Your task to perform on an android device: Search for Italian restaurants on Maps Image 0: 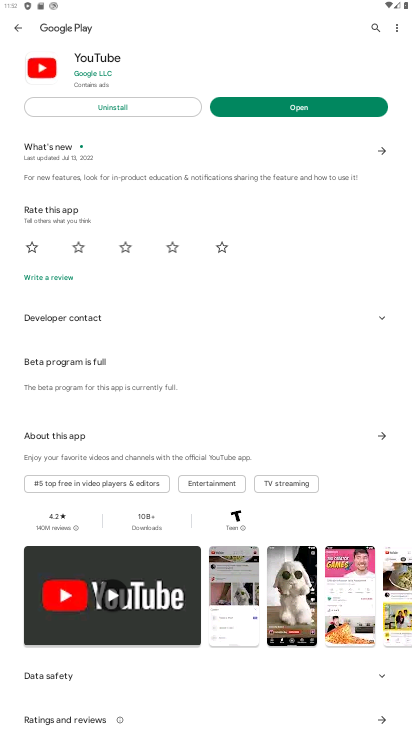
Step 0: press home button
Your task to perform on an android device: Search for Italian restaurants on Maps Image 1: 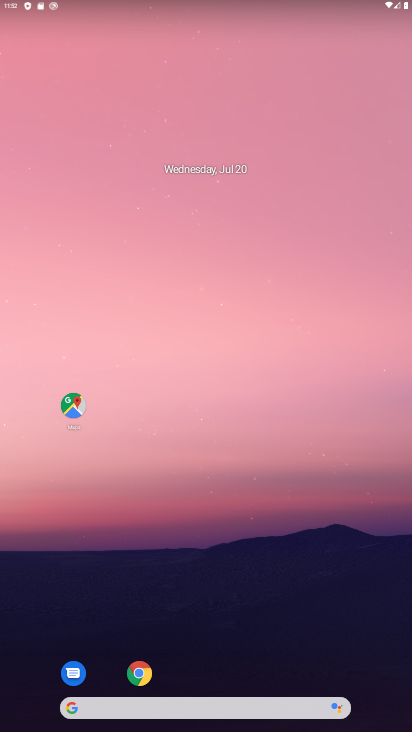
Step 1: click (71, 406)
Your task to perform on an android device: Search for Italian restaurants on Maps Image 2: 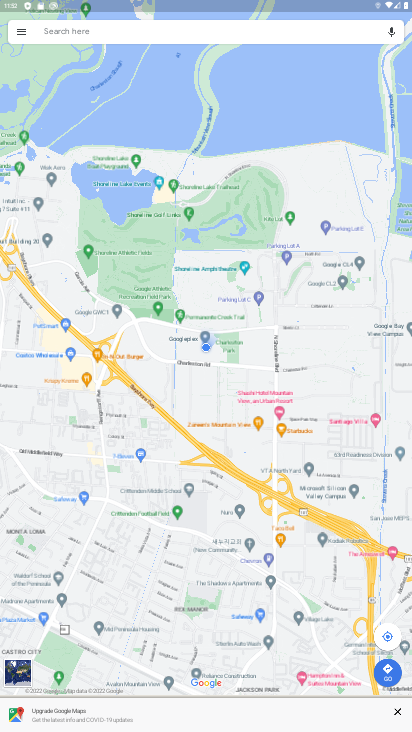
Step 2: click (67, 29)
Your task to perform on an android device: Search for Italian restaurants on Maps Image 3: 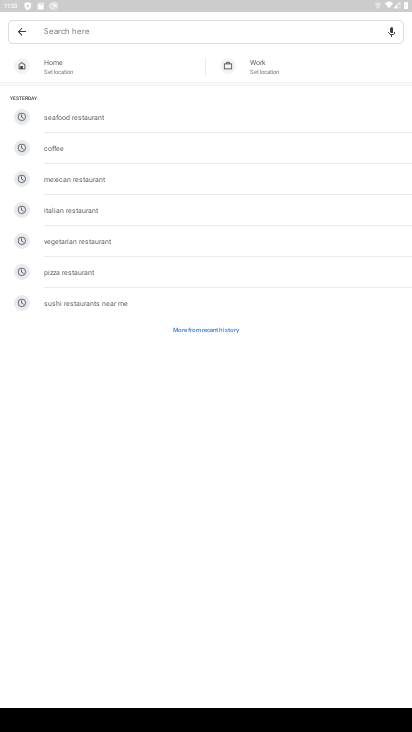
Step 3: click (91, 213)
Your task to perform on an android device: Search for Italian restaurants on Maps Image 4: 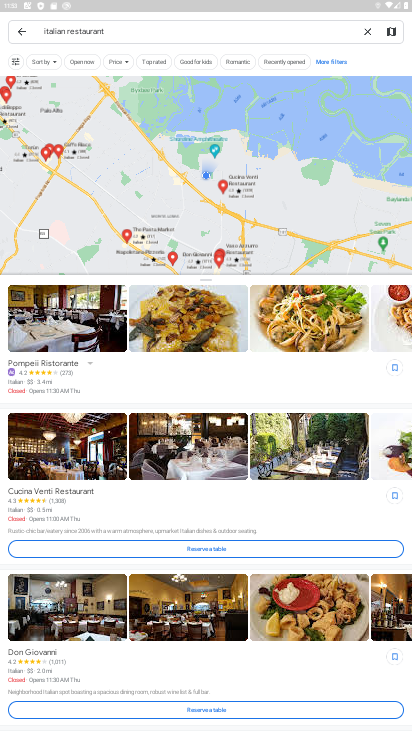
Step 4: task complete